Your task to perform on an android device: Search for "bose soundsport free" on bestbuy.com, select the first entry, add it to the cart, then select checkout. Image 0: 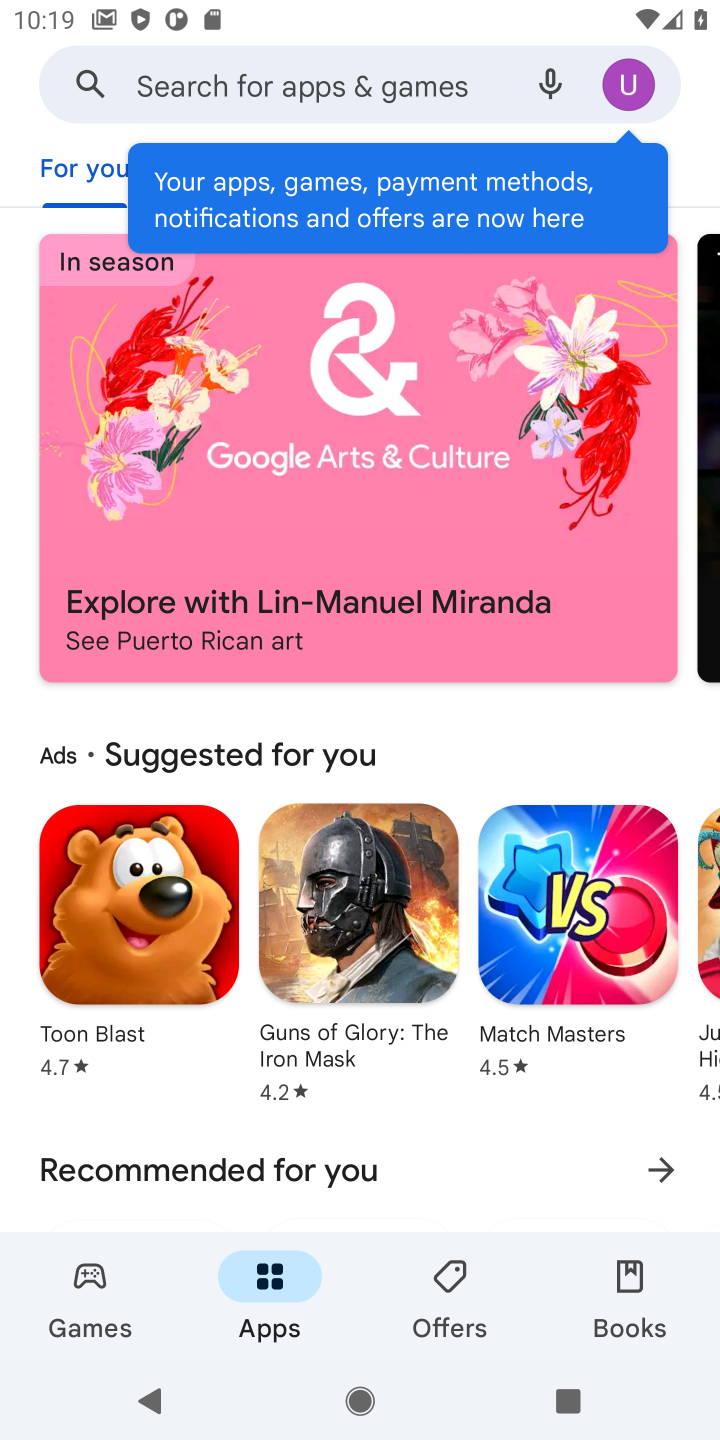
Step 0: press home button
Your task to perform on an android device: Search for "bose soundsport free" on bestbuy.com, select the first entry, add it to the cart, then select checkout. Image 1: 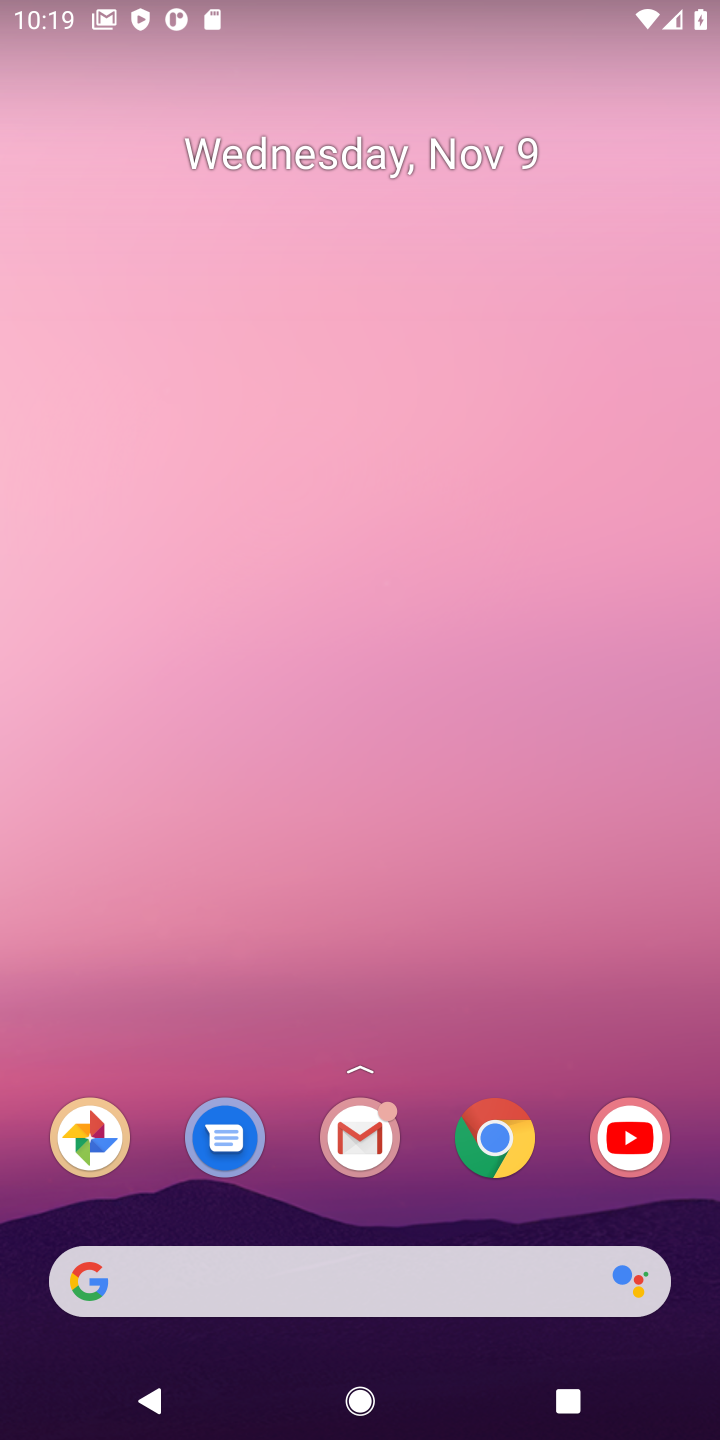
Step 1: drag from (404, 1235) to (536, 4)
Your task to perform on an android device: Search for "bose soundsport free" on bestbuy.com, select the first entry, add it to the cart, then select checkout. Image 2: 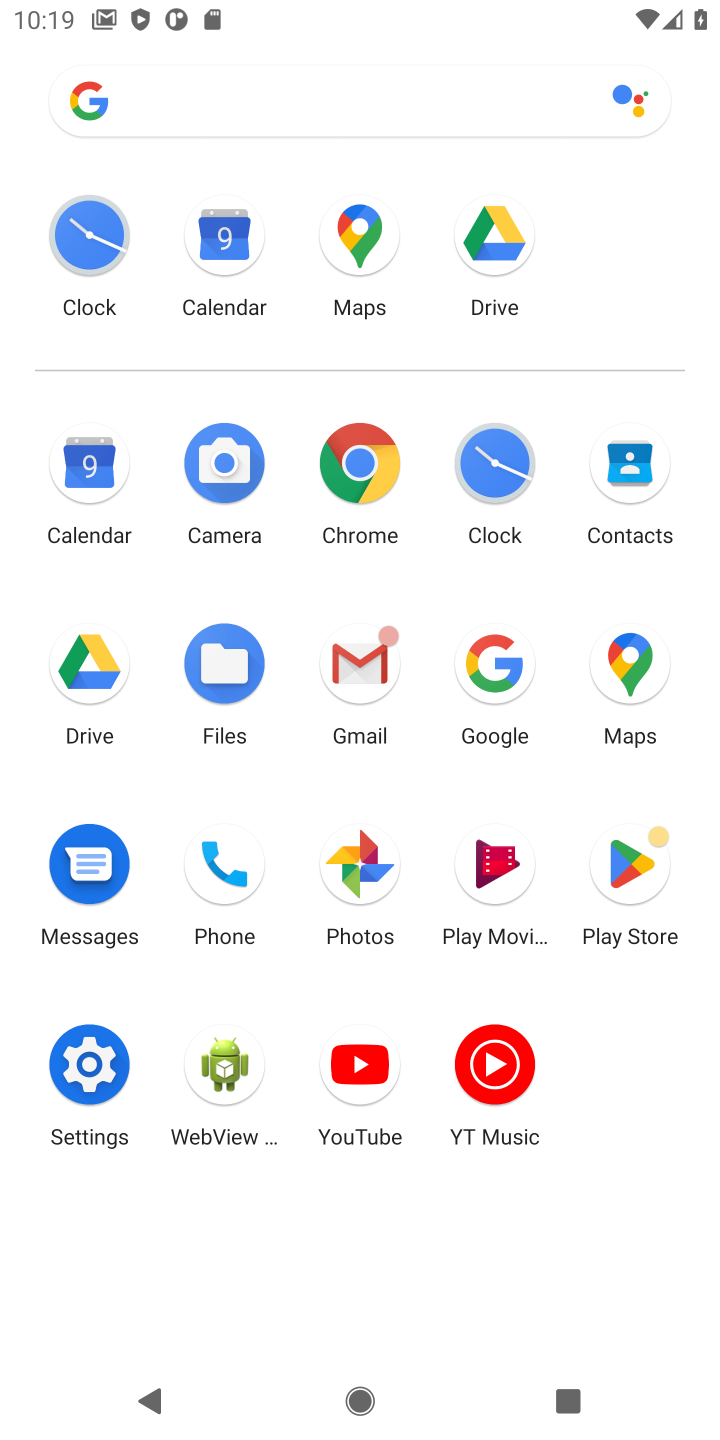
Step 2: click (345, 458)
Your task to perform on an android device: Search for "bose soundsport free" on bestbuy.com, select the first entry, add it to the cart, then select checkout. Image 3: 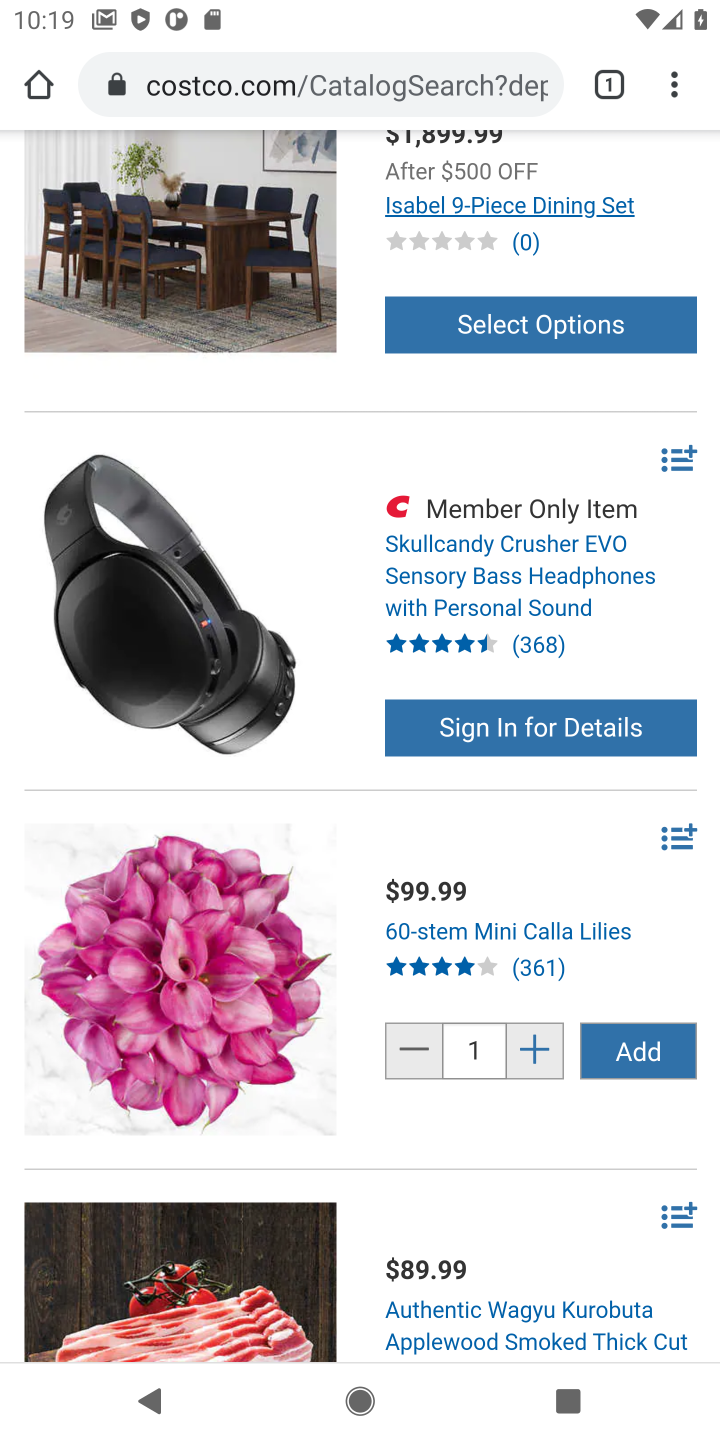
Step 3: click (369, 68)
Your task to perform on an android device: Search for "bose soundsport free" on bestbuy.com, select the first entry, add it to the cart, then select checkout. Image 4: 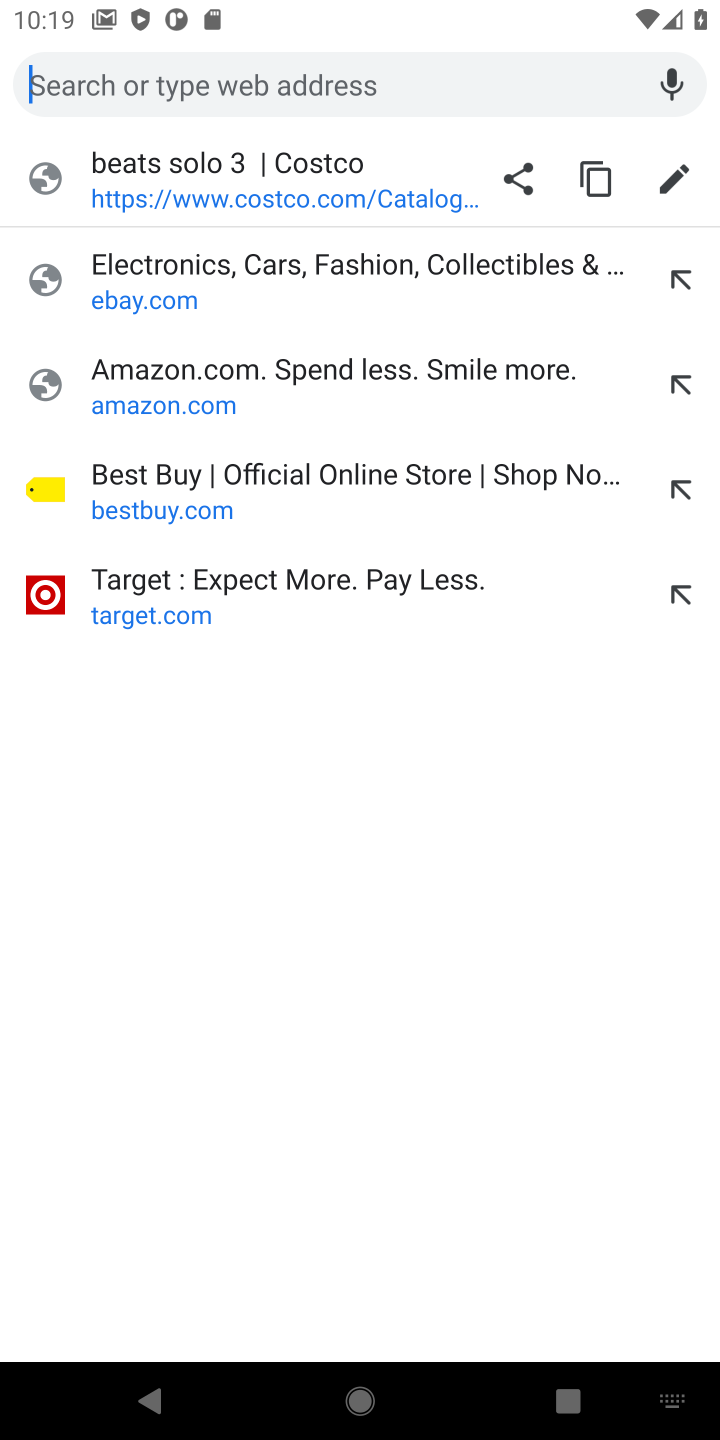
Step 4: type "bestbuy.com"
Your task to perform on an android device: Search for "bose soundsport free" on bestbuy.com, select the first entry, add it to the cart, then select checkout. Image 5: 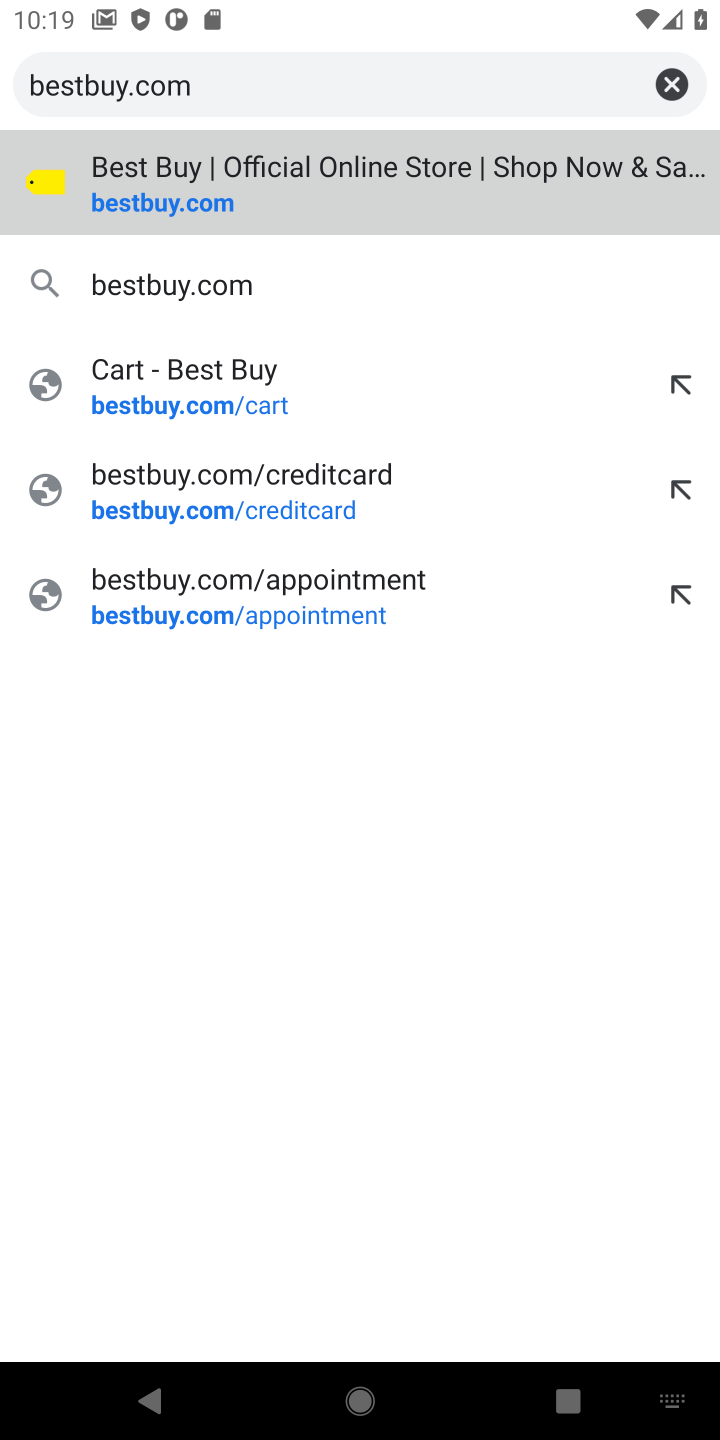
Step 5: press enter
Your task to perform on an android device: Search for "bose soundsport free" on bestbuy.com, select the first entry, add it to the cart, then select checkout. Image 6: 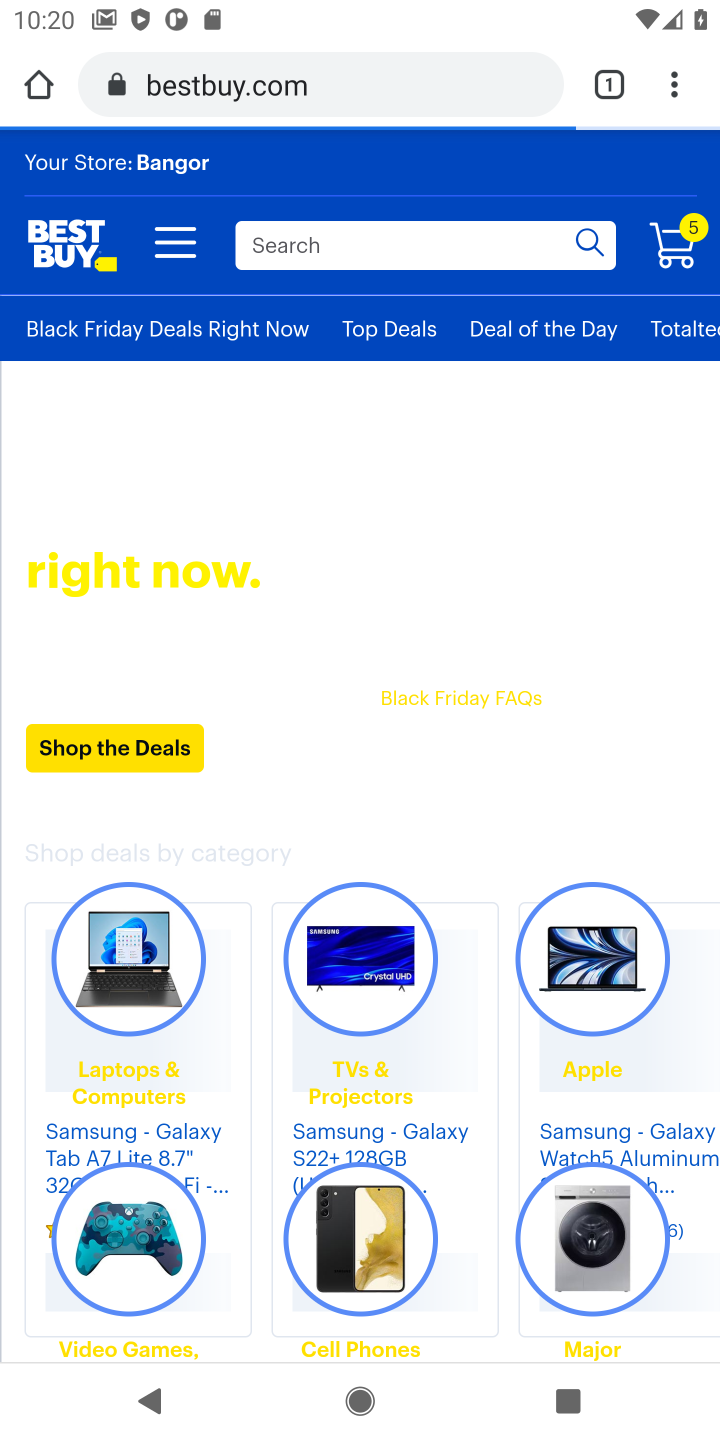
Step 6: click (340, 248)
Your task to perform on an android device: Search for "bose soundsport free" on bestbuy.com, select the first entry, add it to the cart, then select checkout. Image 7: 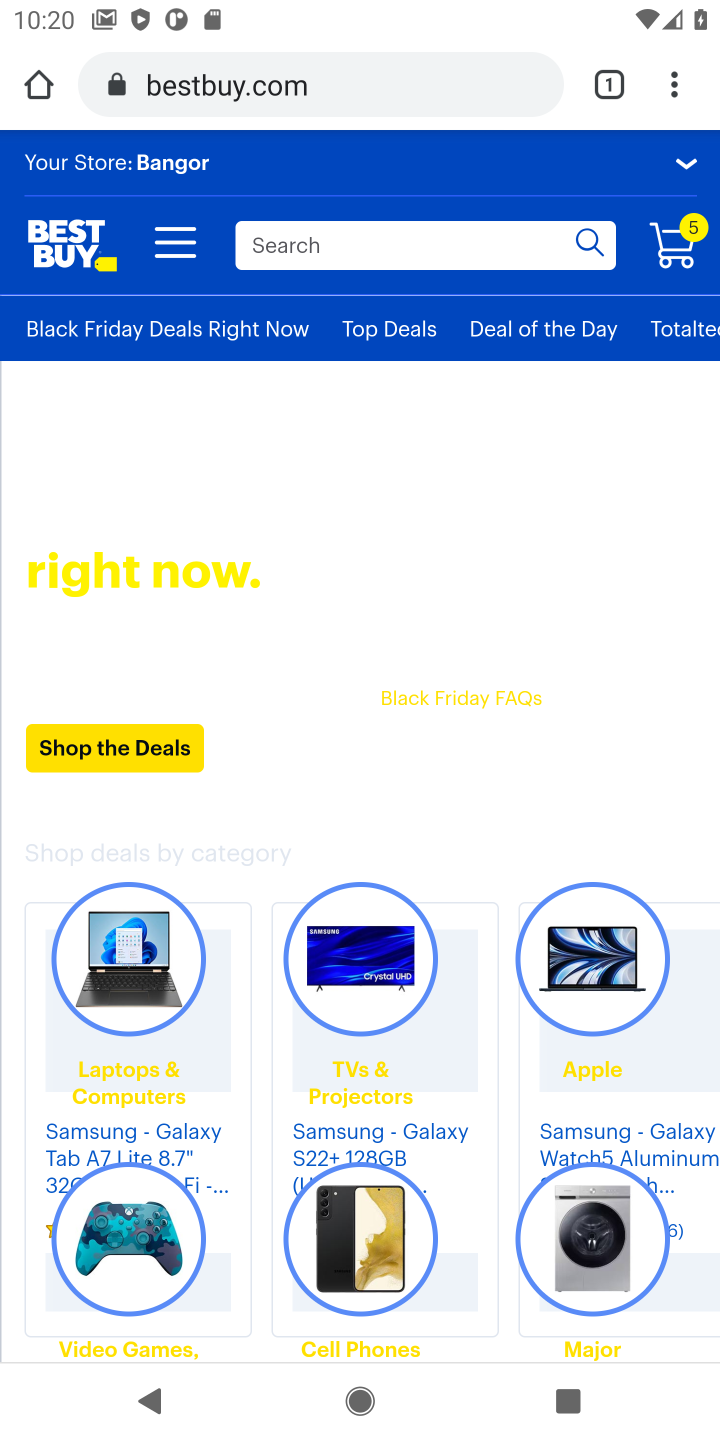
Step 7: type "bose soundsport free"
Your task to perform on an android device: Search for "bose soundsport free" on bestbuy.com, select the first entry, add it to the cart, then select checkout. Image 8: 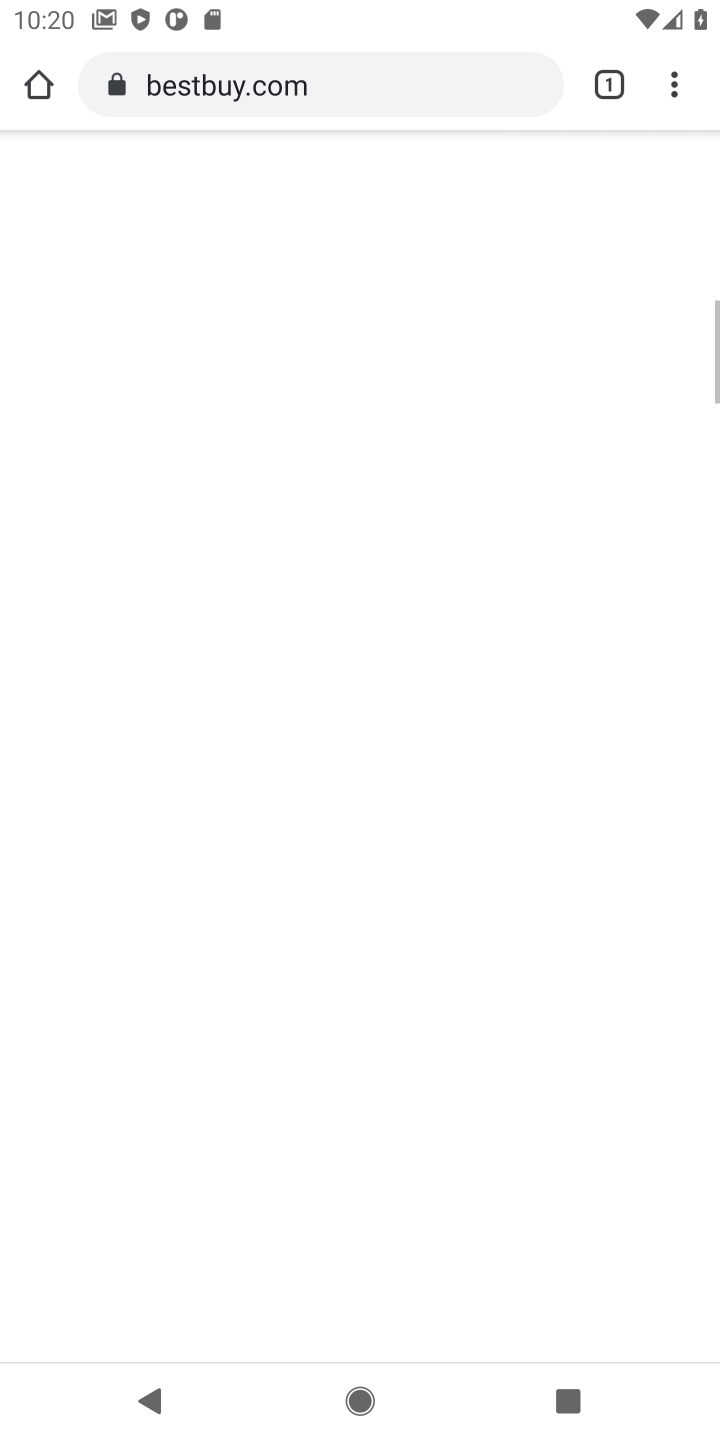
Step 8: press enter
Your task to perform on an android device: Search for "bose soundsport free" on bestbuy.com, select the first entry, add it to the cart, then select checkout. Image 9: 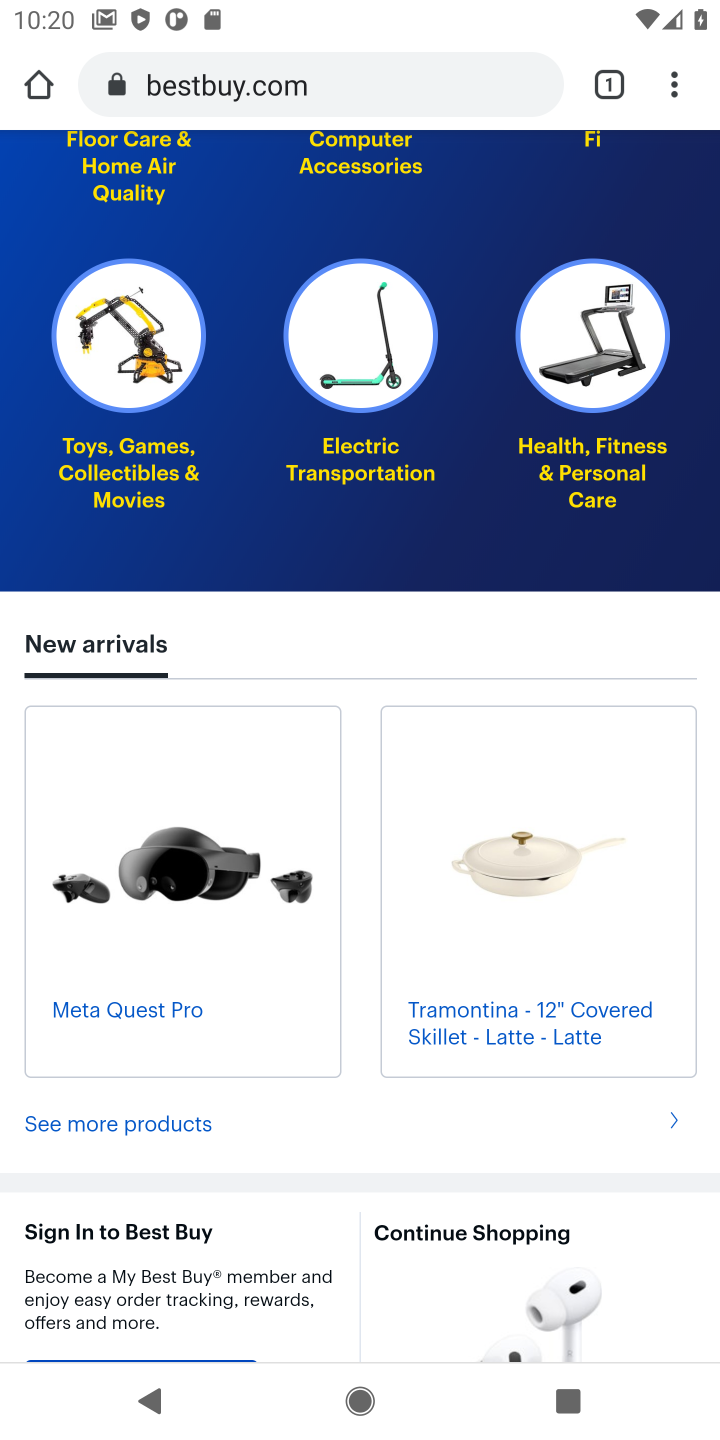
Step 9: task complete